Your task to perform on an android device: Open wifi settings Image 0: 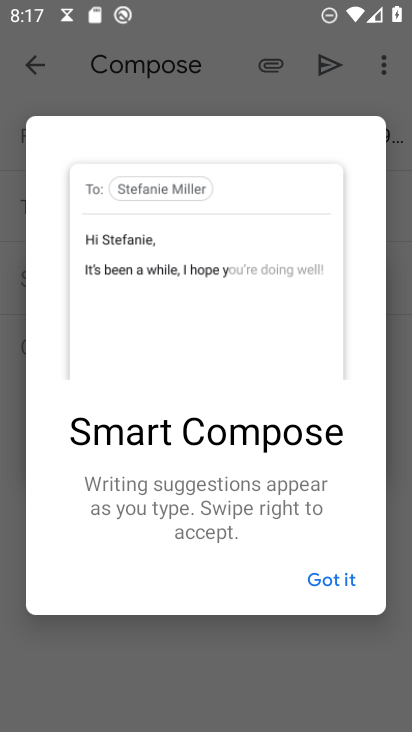
Step 0: press home button
Your task to perform on an android device: Open wifi settings Image 1: 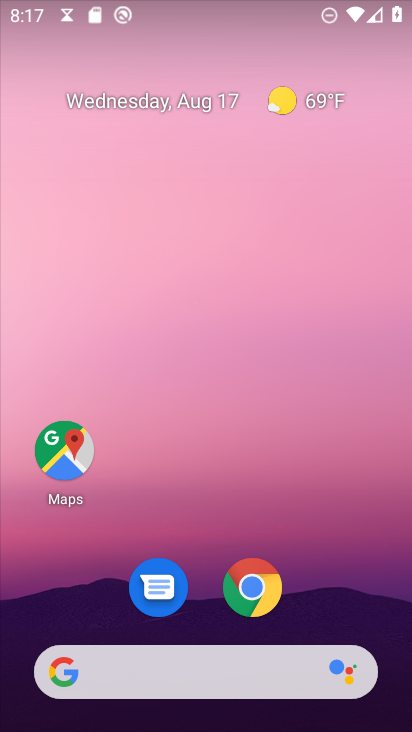
Step 1: drag from (25, 706) to (201, 42)
Your task to perform on an android device: Open wifi settings Image 2: 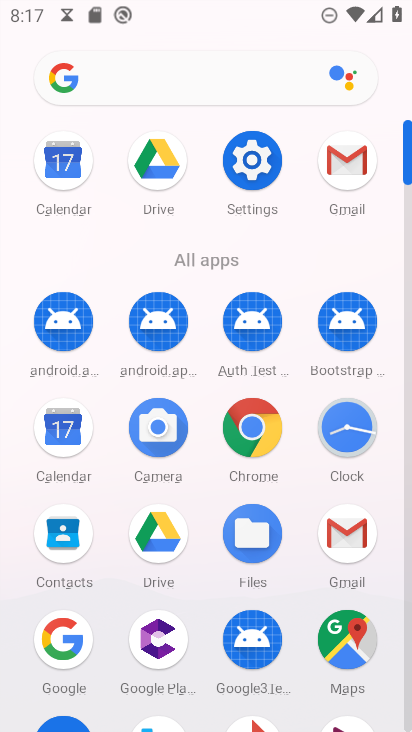
Step 2: click (262, 176)
Your task to perform on an android device: Open wifi settings Image 3: 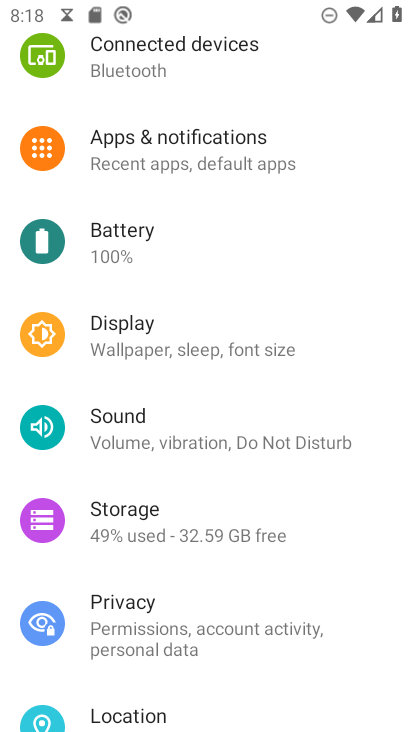
Step 3: drag from (298, 47) to (346, 534)
Your task to perform on an android device: Open wifi settings Image 4: 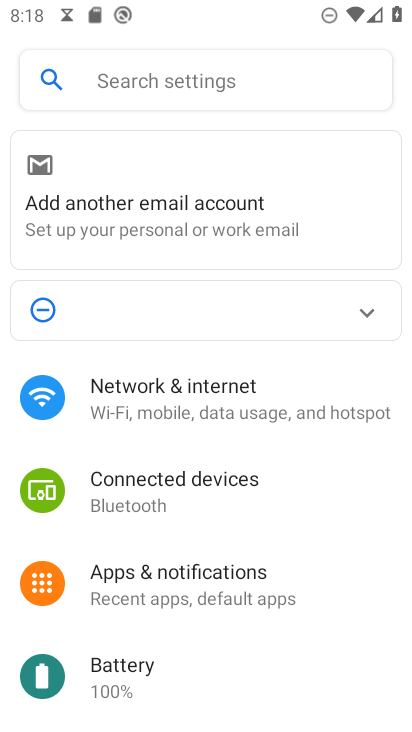
Step 4: click (185, 400)
Your task to perform on an android device: Open wifi settings Image 5: 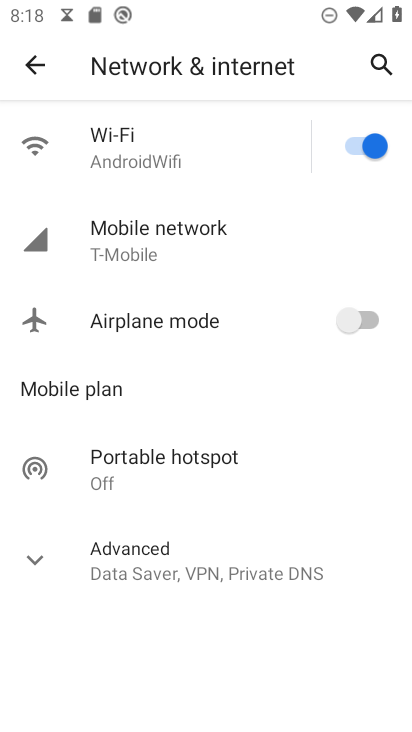
Step 5: task complete